Your task to perform on an android device: see creations saved in the google photos Image 0: 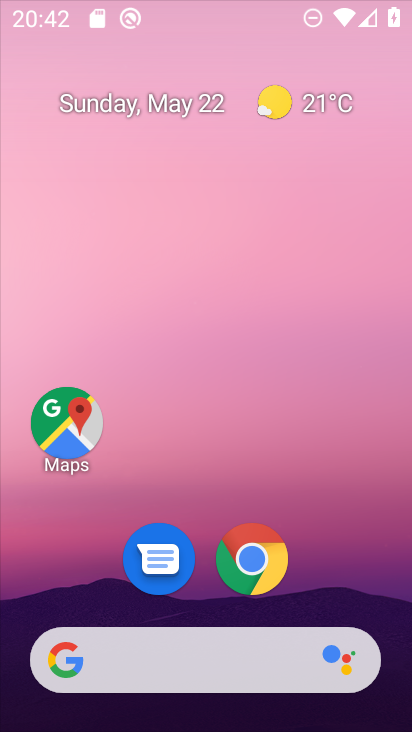
Step 0: press home button
Your task to perform on an android device: see creations saved in the google photos Image 1: 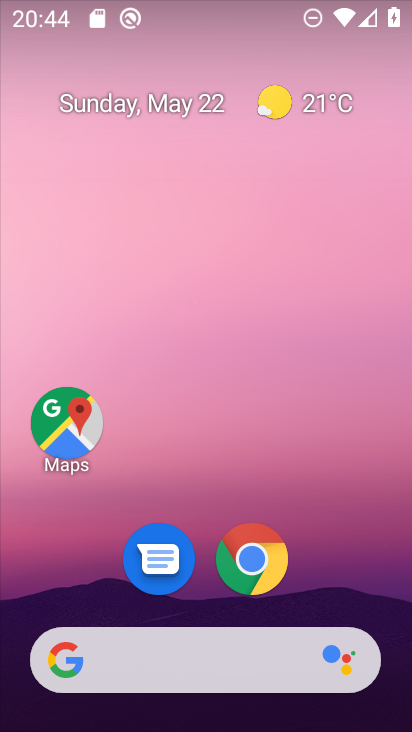
Step 1: drag from (263, 541) to (297, 135)
Your task to perform on an android device: see creations saved in the google photos Image 2: 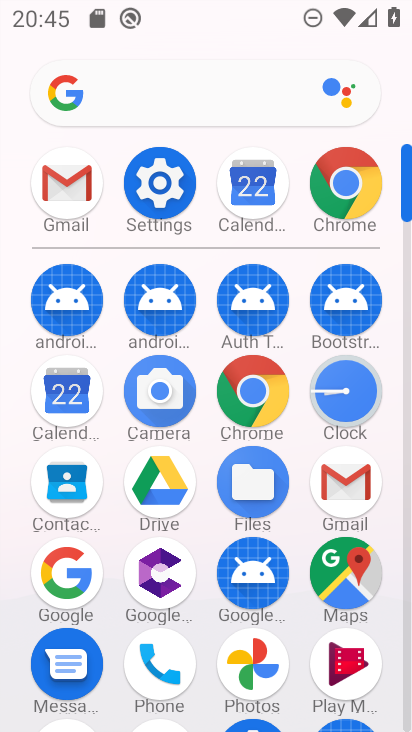
Step 2: click (246, 651)
Your task to perform on an android device: see creations saved in the google photos Image 3: 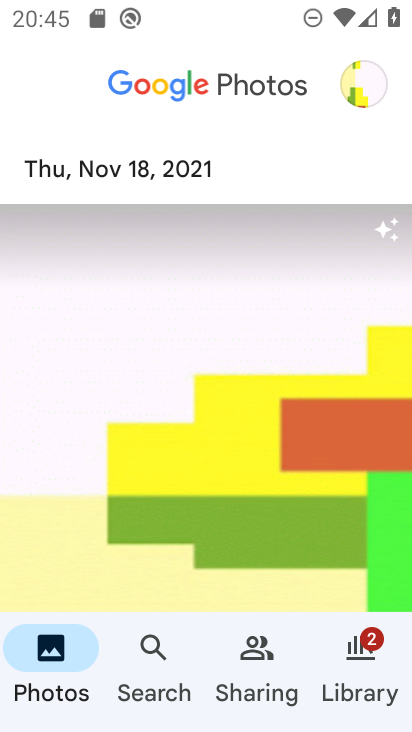
Step 3: click (163, 458)
Your task to perform on an android device: see creations saved in the google photos Image 4: 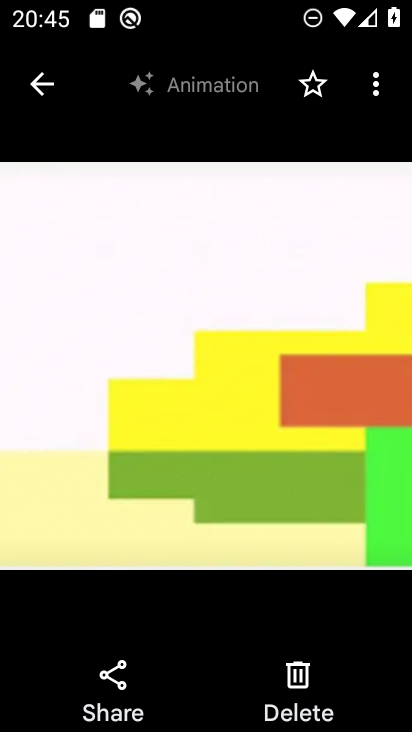
Step 4: click (388, 74)
Your task to perform on an android device: see creations saved in the google photos Image 5: 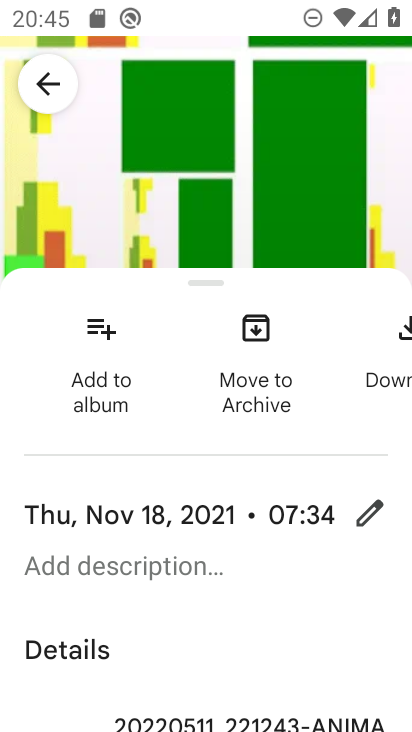
Step 5: task complete